Your task to perform on an android device: Show me recent news Image 0: 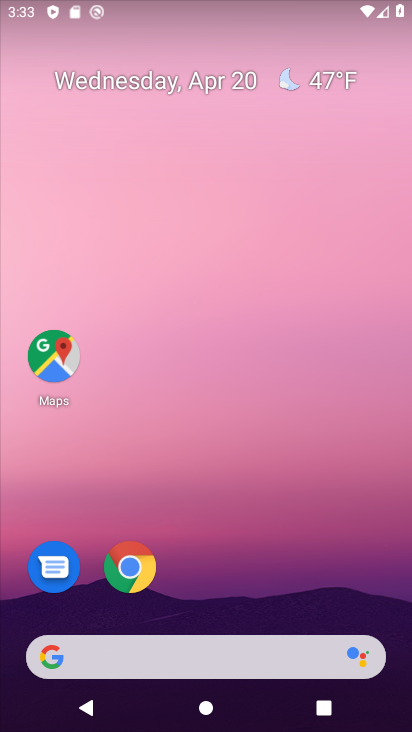
Step 0: click (143, 665)
Your task to perform on an android device: Show me recent news Image 1: 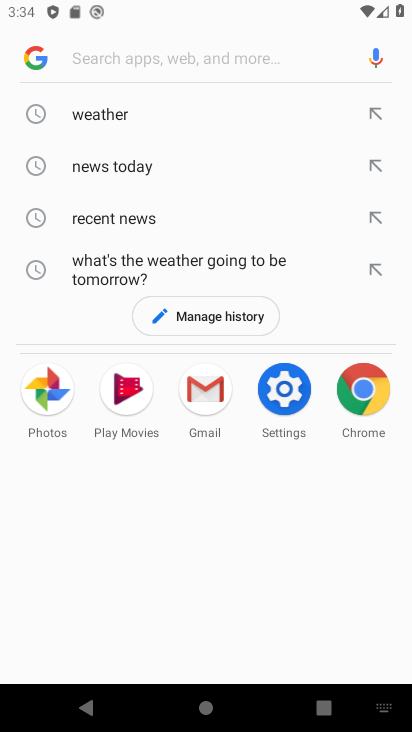
Step 1: click (35, 48)
Your task to perform on an android device: Show me recent news Image 2: 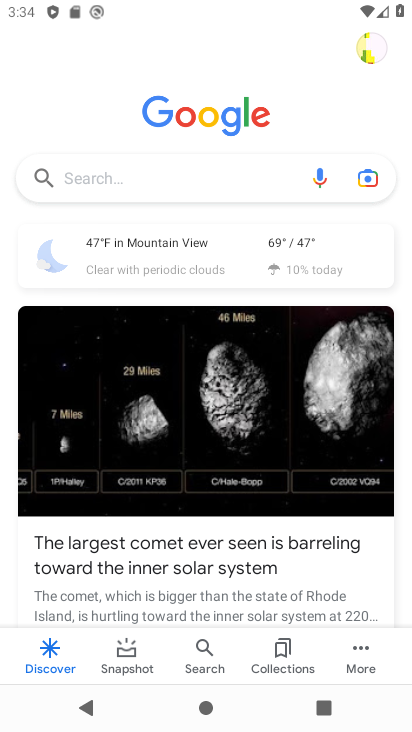
Step 2: task complete